Your task to perform on an android device: Go to Wikipedia Image 0: 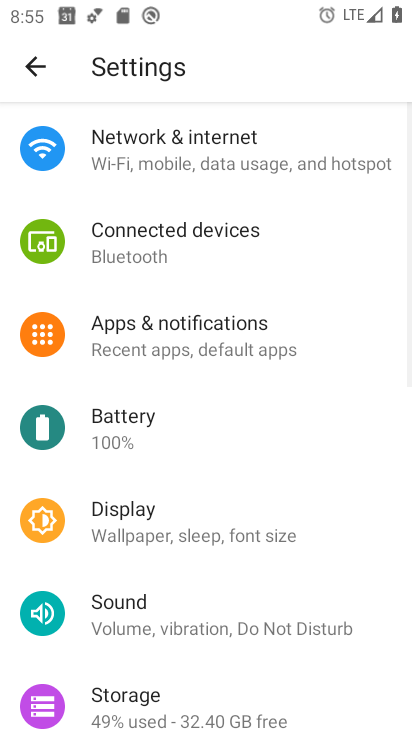
Step 0: press home button
Your task to perform on an android device: Go to Wikipedia Image 1: 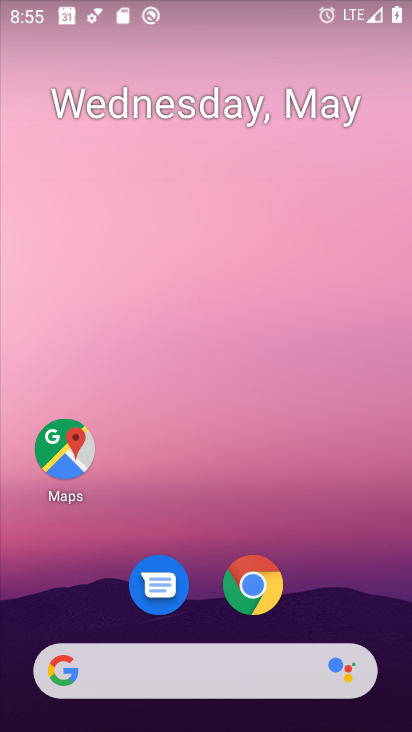
Step 1: click (264, 582)
Your task to perform on an android device: Go to Wikipedia Image 2: 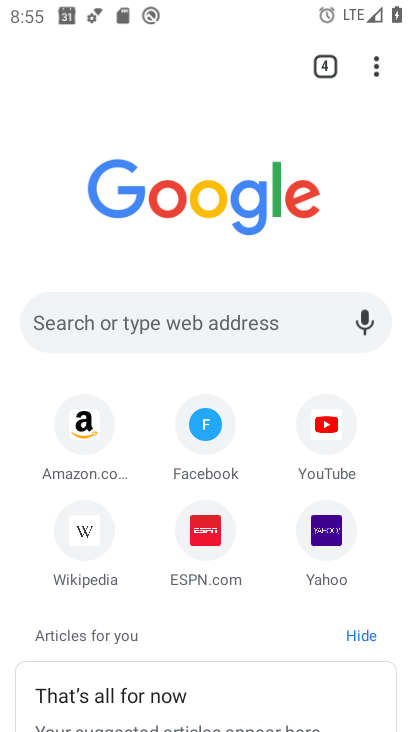
Step 2: click (99, 524)
Your task to perform on an android device: Go to Wikipedia Image 3: 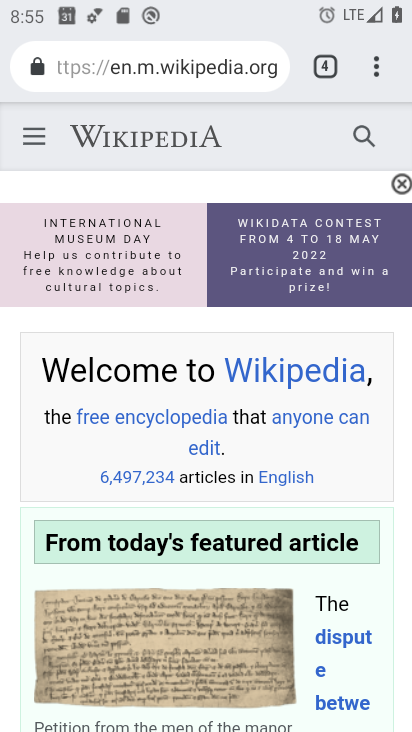
Step 3: task complete